Your task to perform on an android device: Open wifi settings Image 0: 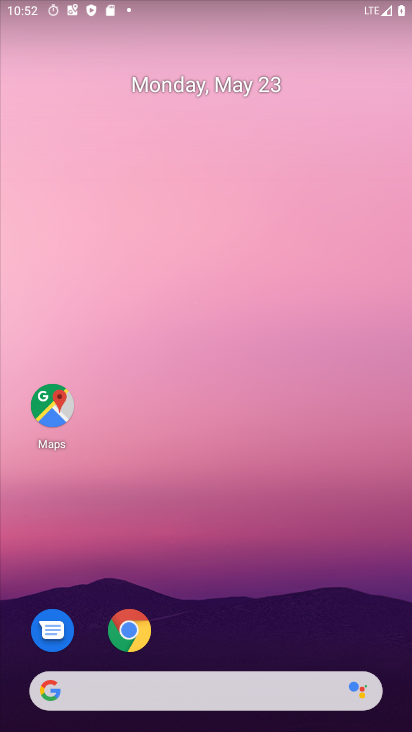
Step 0: drag from (276, 659) to (315, 3)
Your task to perform on an android device: Open wifi settings Image 1: 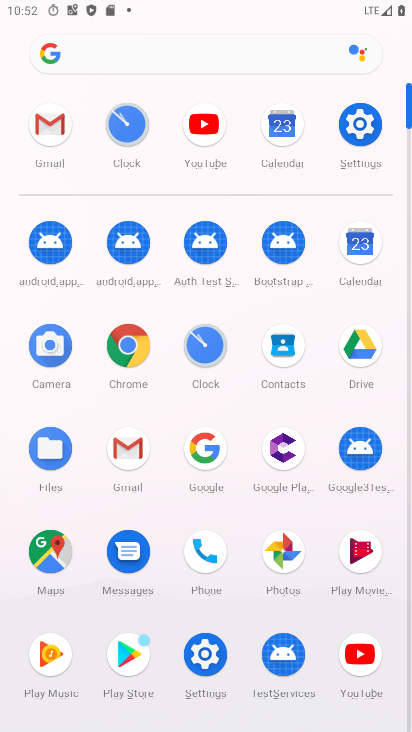
Step 1: click (357, 113)
Your task to perform on an android device: Open wifi settings Image 2: 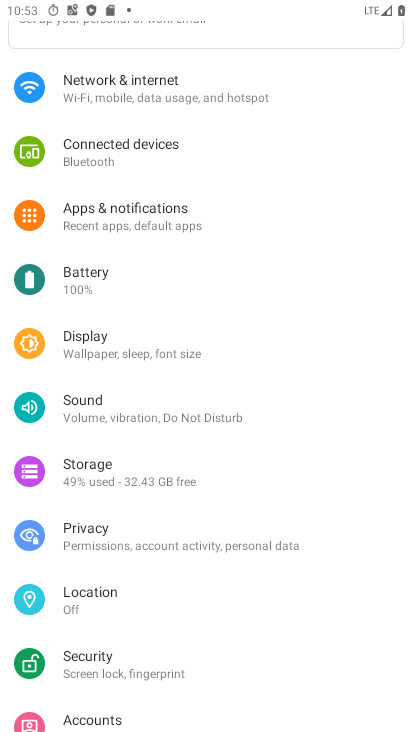
Step 2: click (114, 94)
Your task to perform on an android device: Open wifi settings Image 3: 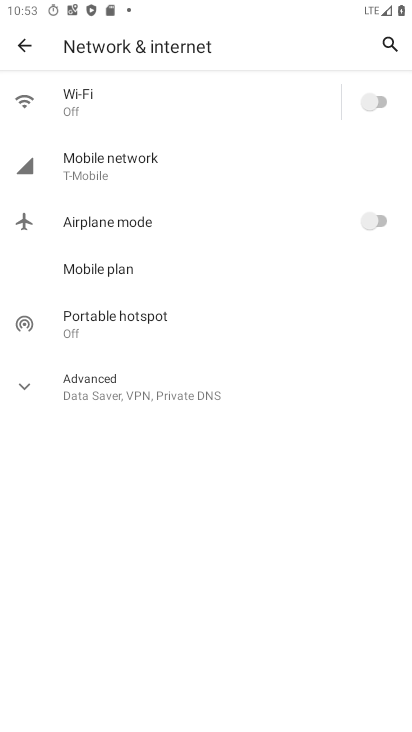
Step 3: click (39, 99)
Your task to perform on an android device: Open wifi settings Image 4: 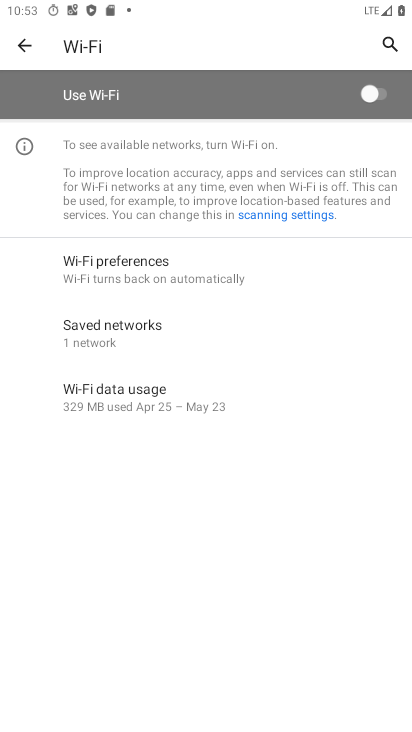
Step 4: task complete